Your task to perform on an android device: Open my contact list Image 0: 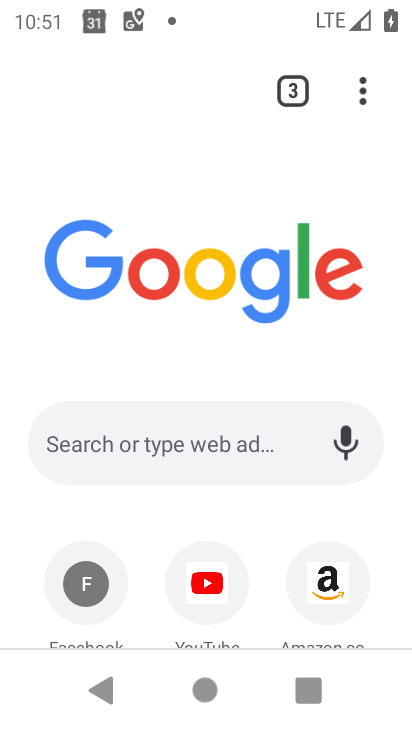
Step 0: press home button
Your task to perform on an android device: Open my contact list Image 1: 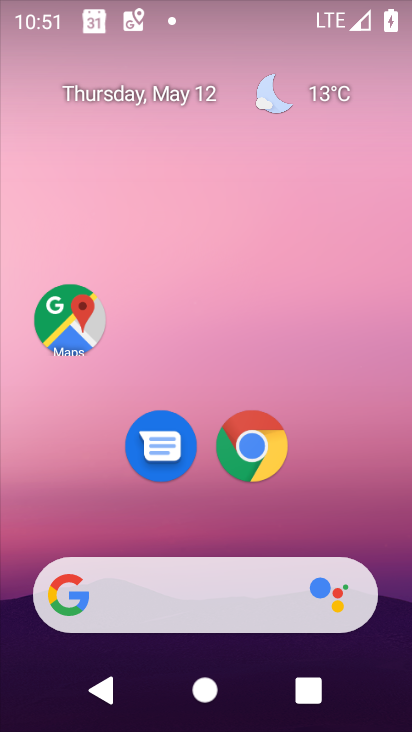
Step 1: drag from (193, 598) to (224, 34)
Your task to perform on an android device: Open my contact list Image 2: 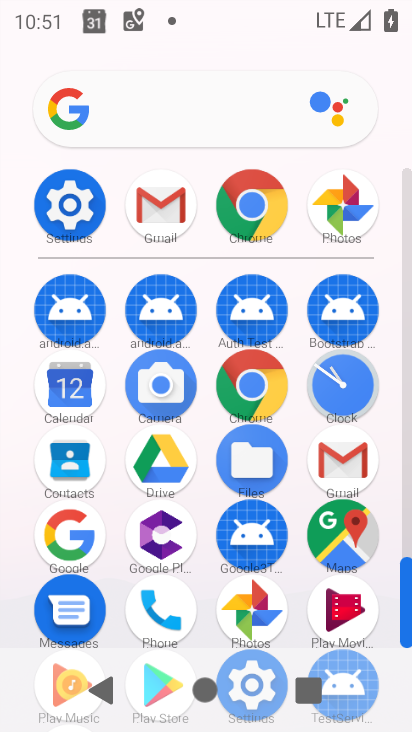
Step 2: click (74, 474)
Your task to perform on an android device: Open my contact list Image 3: 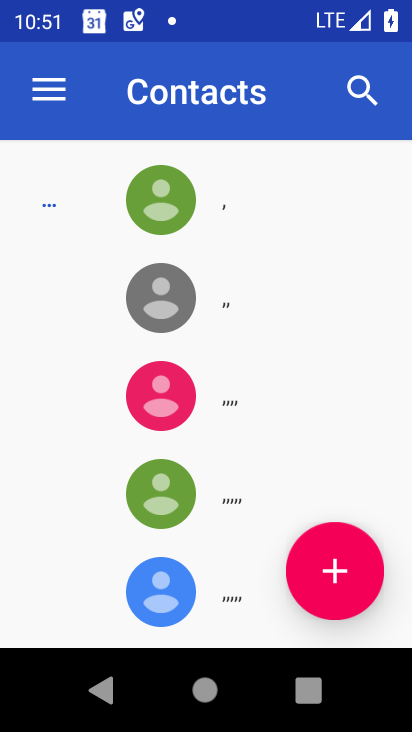
Step 3: task complete